Your task to perform on an android device: manage bookmarks in the chrome app Image 0: 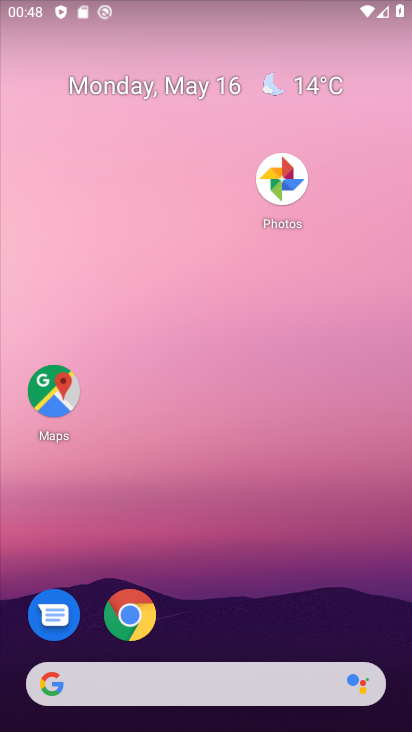
Step 0: drag from (330, 625) to (303, 252)
Your task to perform on an android device: manage bookmarks in the chrome app Image 1: 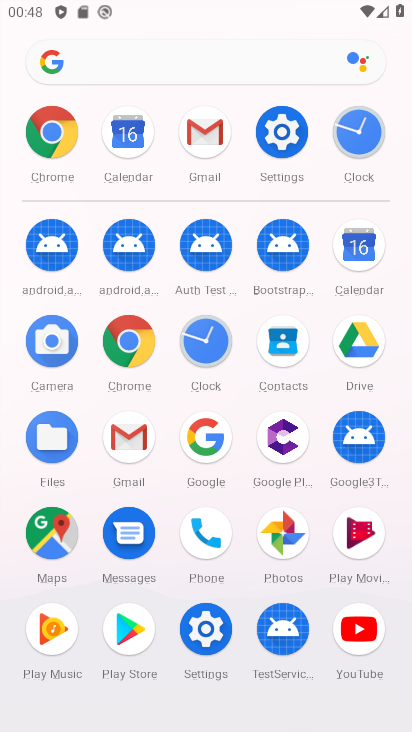
Step 1: click (113, 339)
Your task to perform on an android device: manage bookmarks in the chrome app Image 2: 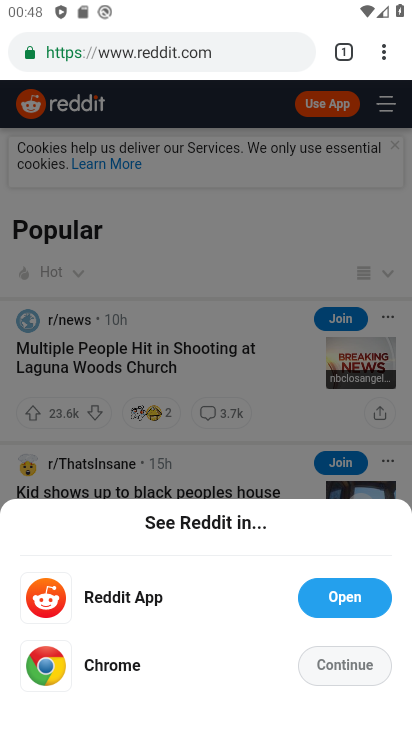
Step 2: task complete